Your task to perform on an android device: turn on airplane mode Image 0: 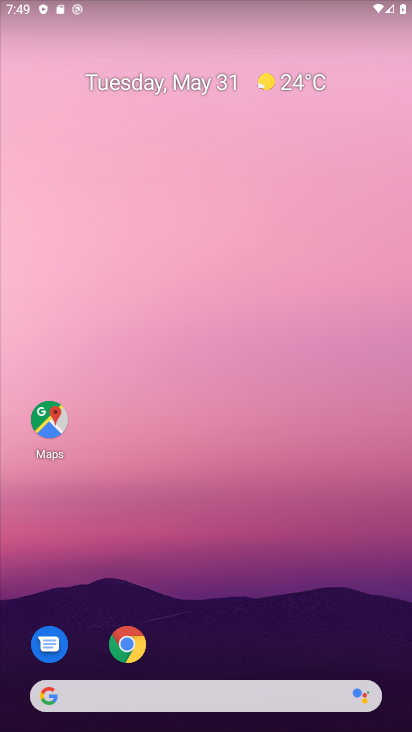
Step 0: drag from (288, 616) to (283, 225)
Your task to perform on an android device: turn on airplane mode Image 1: 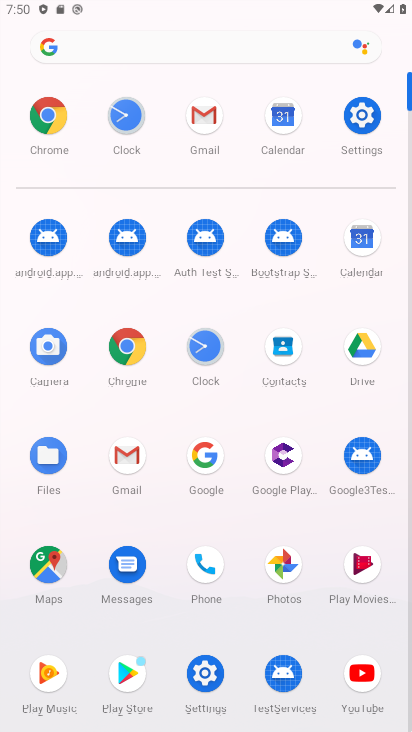
Step 1: click (369, 128)
Your task to perform on an android device: turn on airplane mode Image 2: 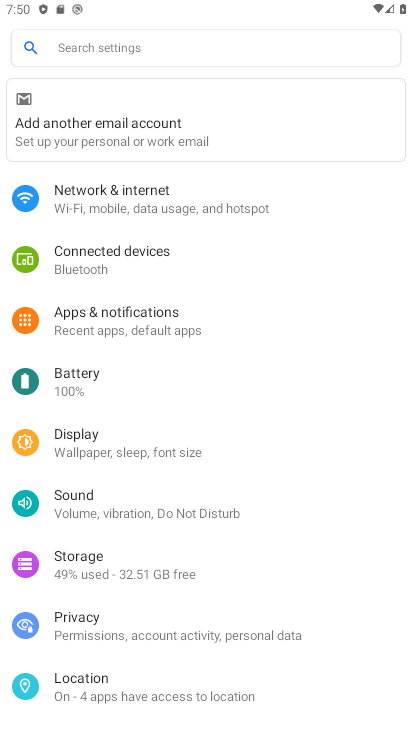
Step 2: click (160, 192)
Your task to perform on an android device: turn on airplane mode Image 3: 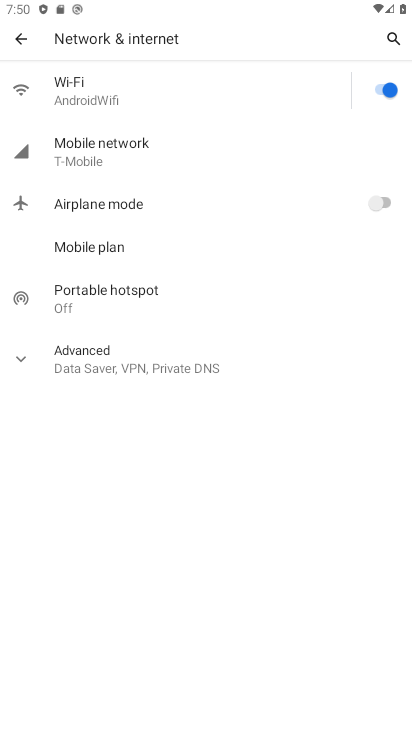
Step 3: click (387, 203)
Your task to perform on an android device: turn on airplane mode Image 4: 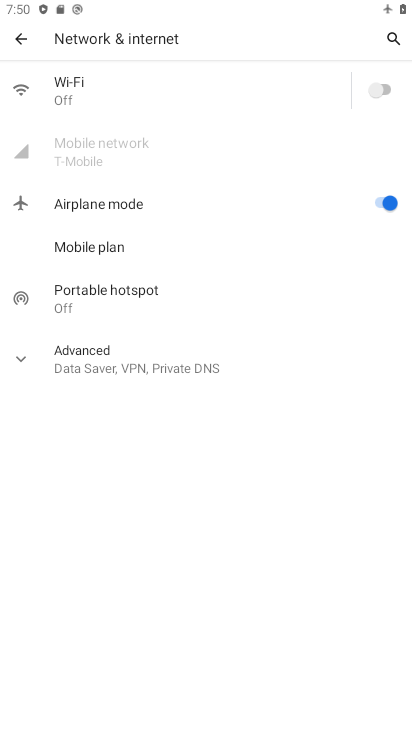
Step 4: task complete